Your task to perform on an android device: Go to calendar. Show me events next week Image 0: 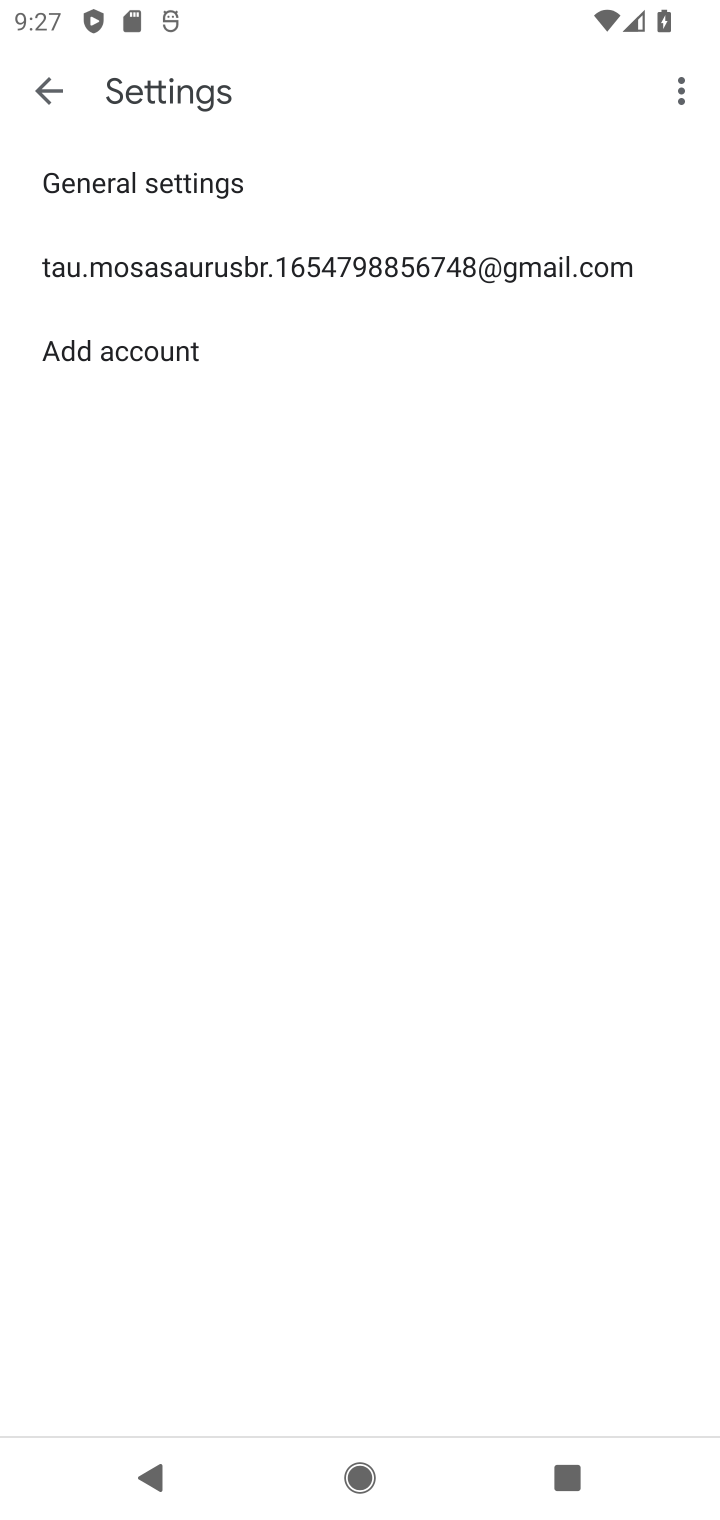
Step 0: press home button
Your task to perform on an android device: Go to calendar. Show me events next week Image 1: 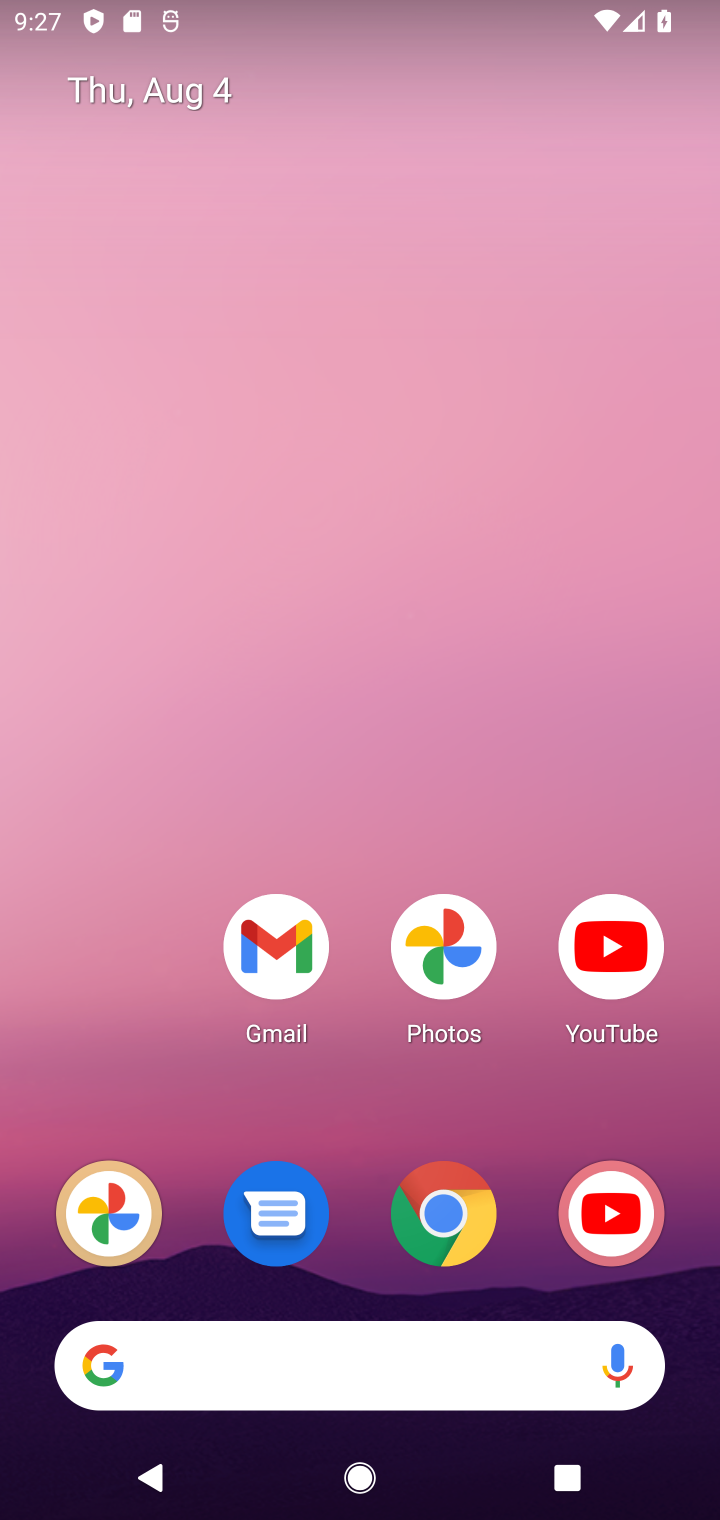
Step 1: drag from (358, 1124) to (426, 18)
Your task to perform on an android device: Go to calendar. Show me events next week Image 2: 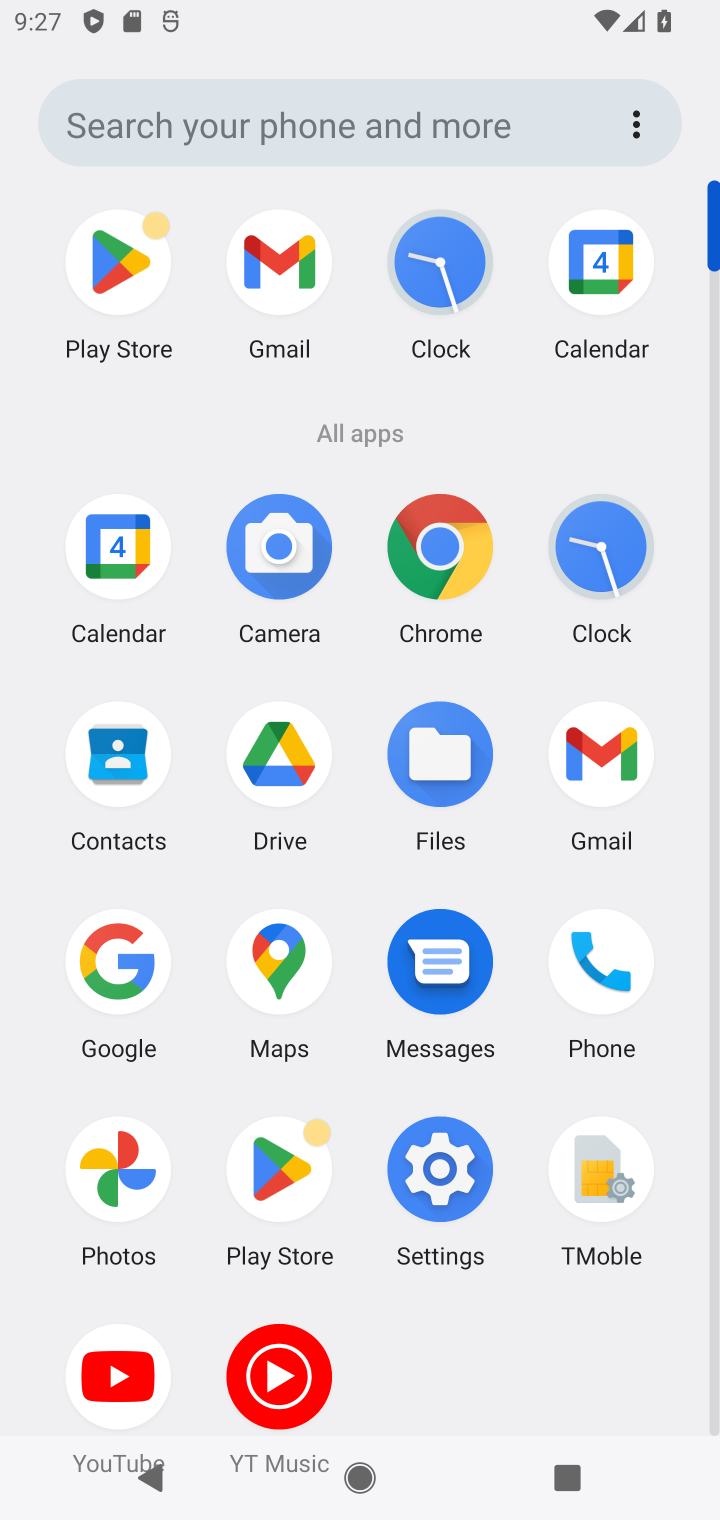
Step 2: click (605, 249)
Your task to perform on an android device: Go to calendar. Show me events next week Image 3: 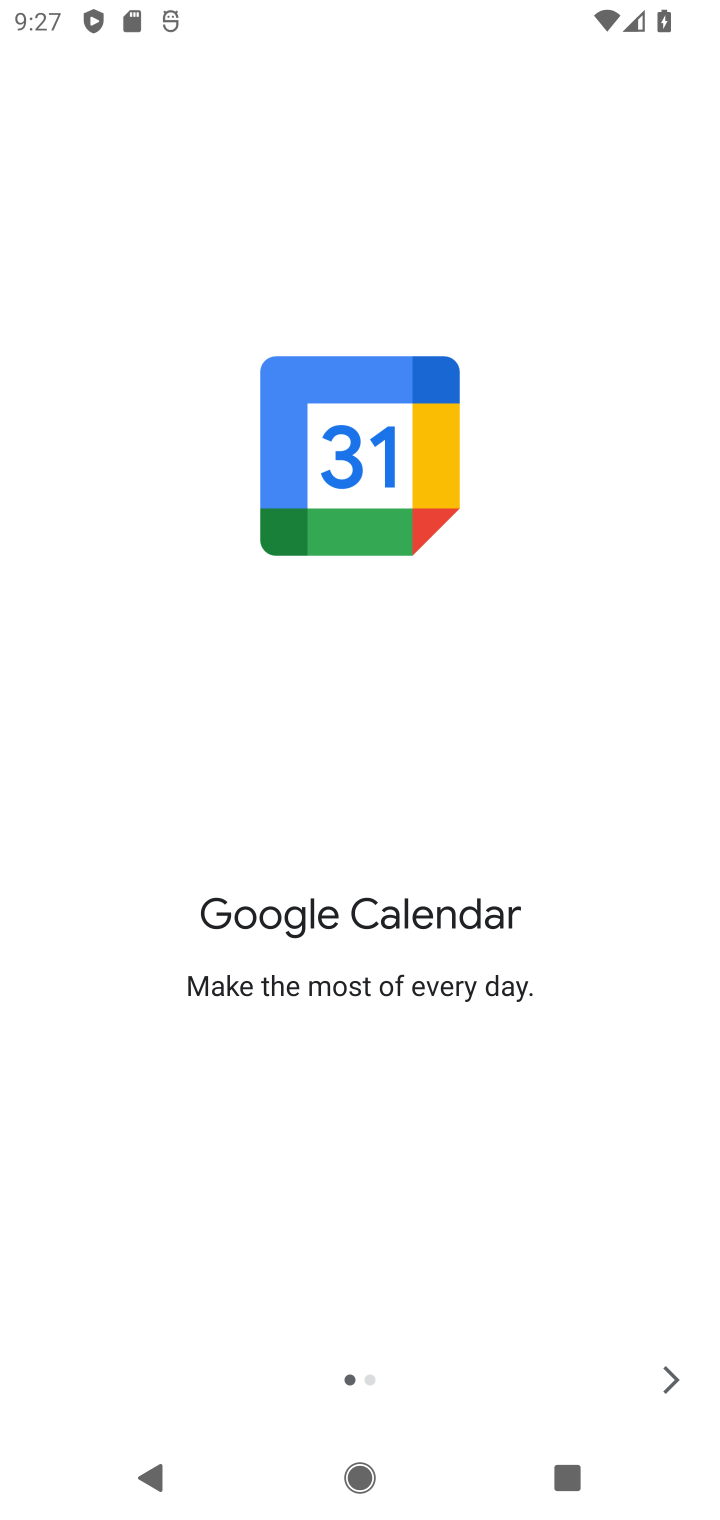
Step 3: click (664, 1369)
Your task to perform on an android device: Go to calendar. Show me events next week Image 4: 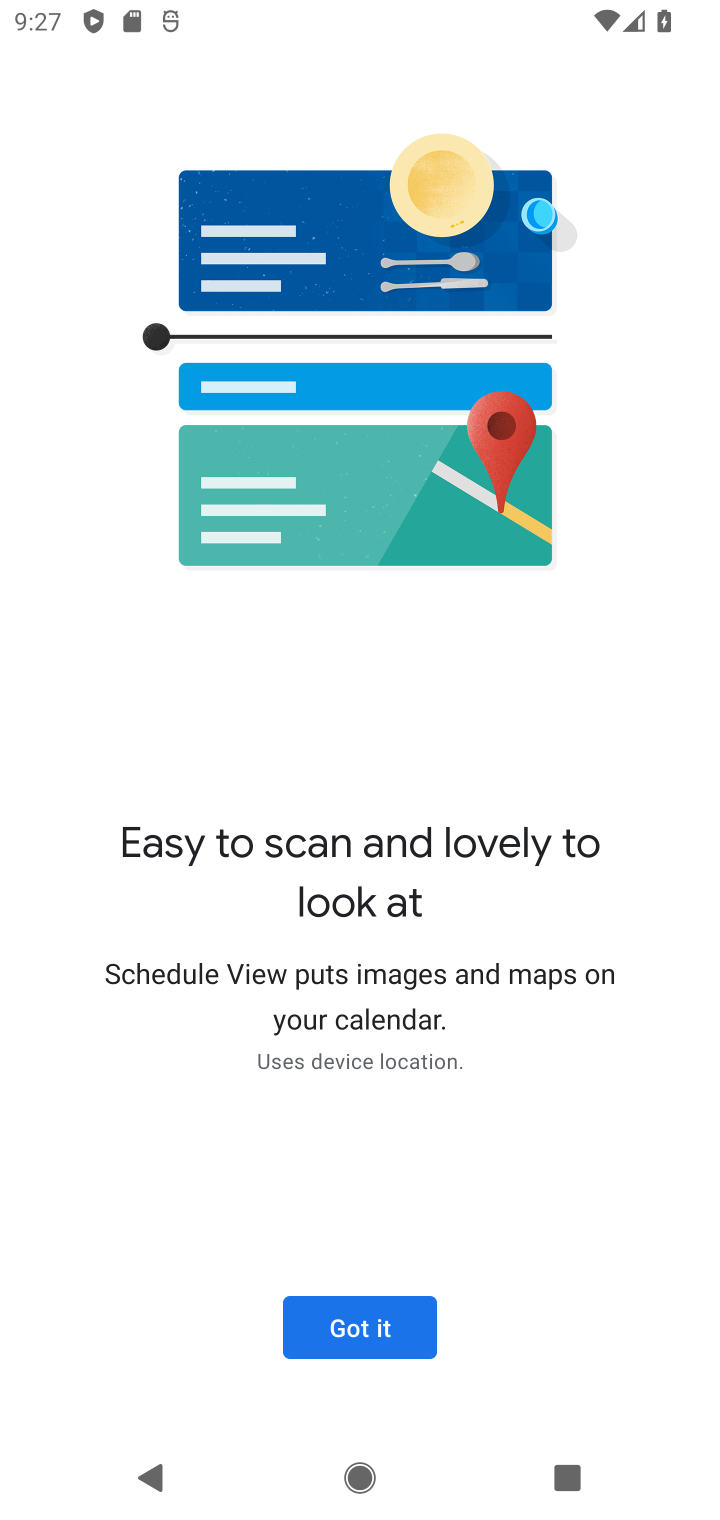
Step 4: click (664, 1369)
Your task to perform on an android device: Go to calendar. Show me events next week Image 5: 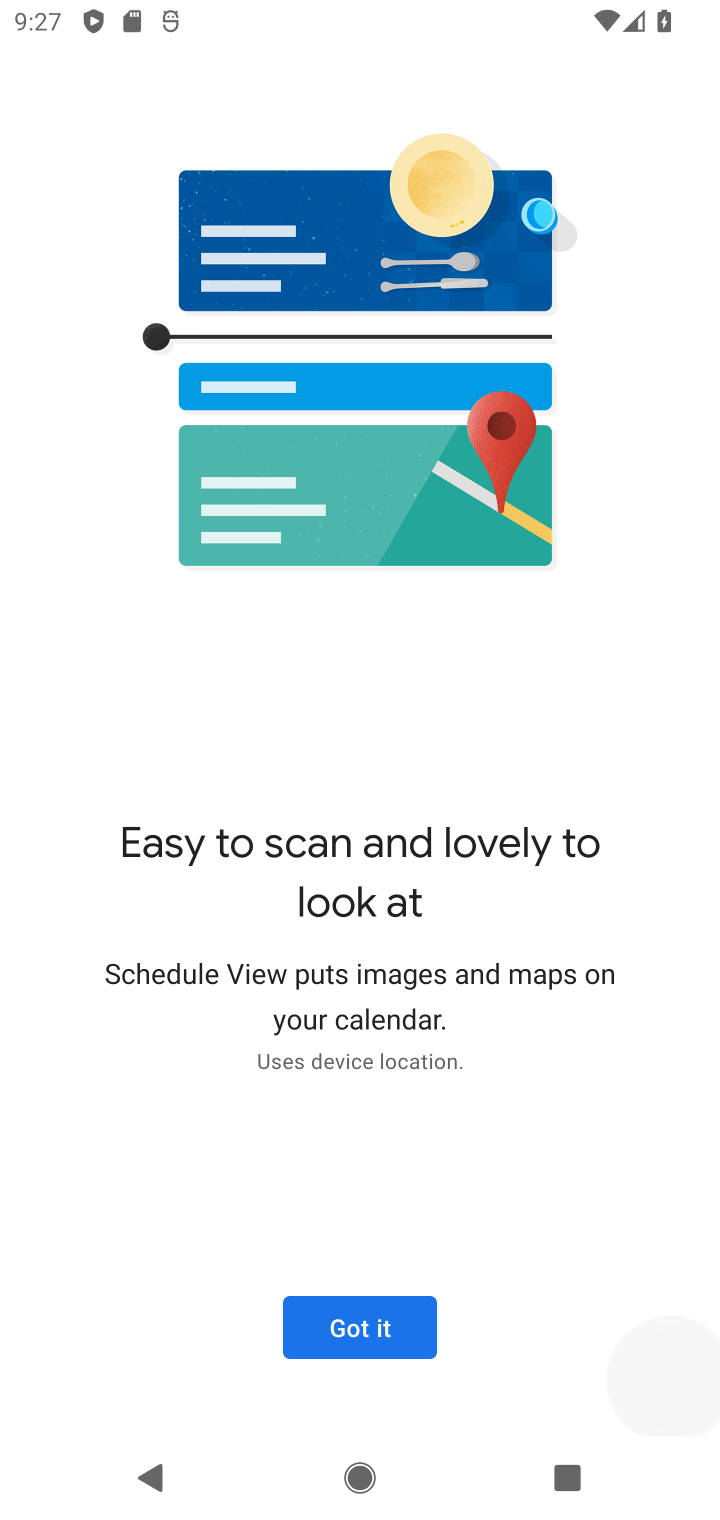
Step 5: click (363, 1323)
Your task to perform on an android device: Go to calendar. Show me events next week Image 6: 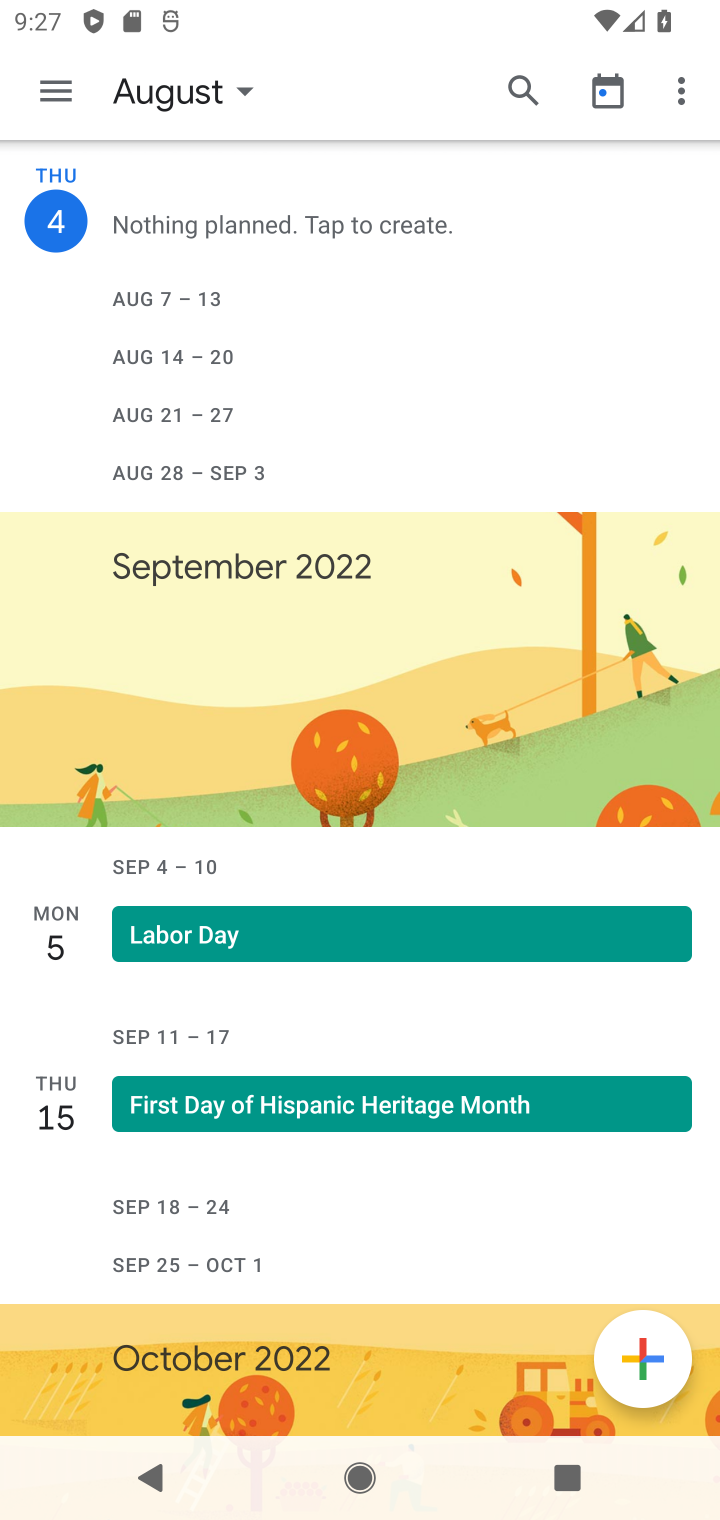
Step 6: click (43, 78)
Your task to perform on an android device: Go to calendar. Show me events next week Image 7: 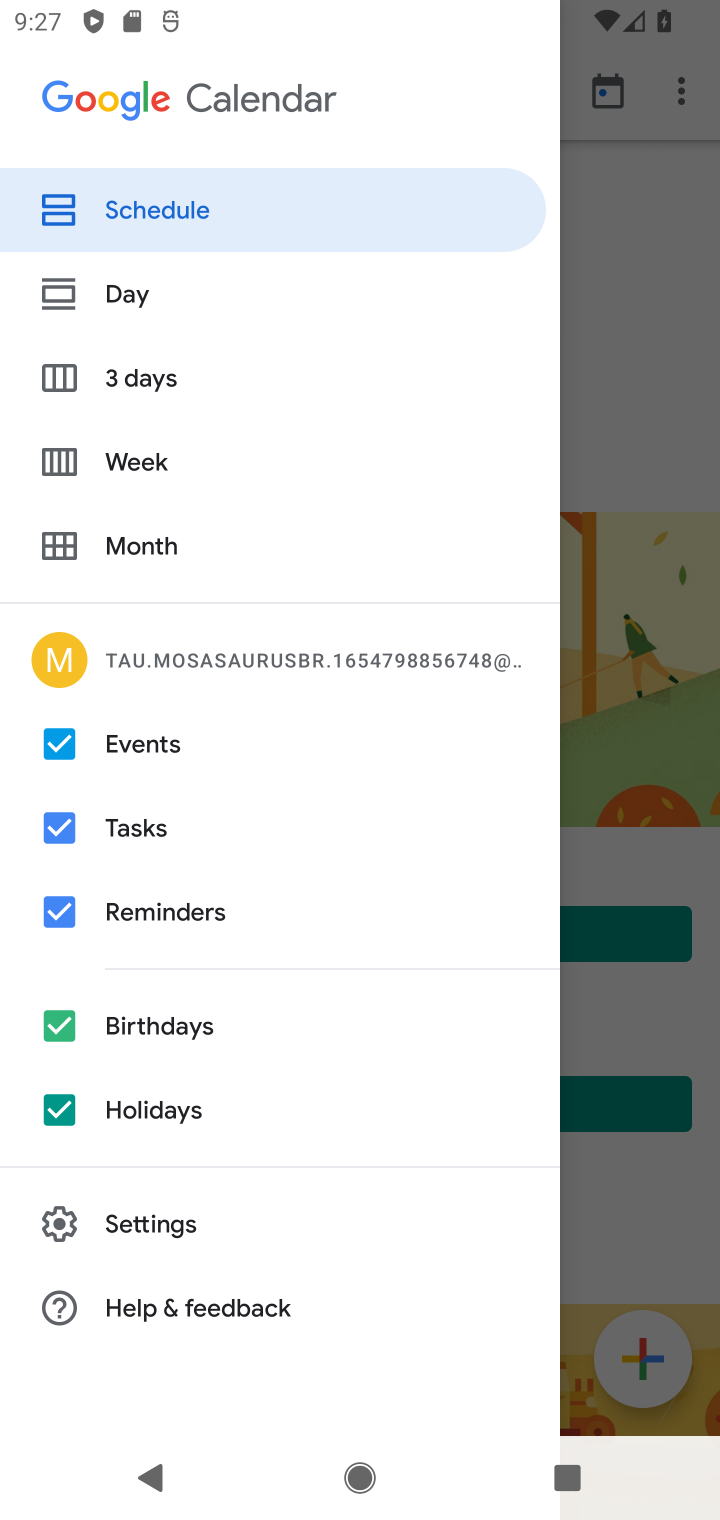
Step 7: click (121, 452)
Your task to perform on an android device: Go to calendar. Show me events next week Image 8: 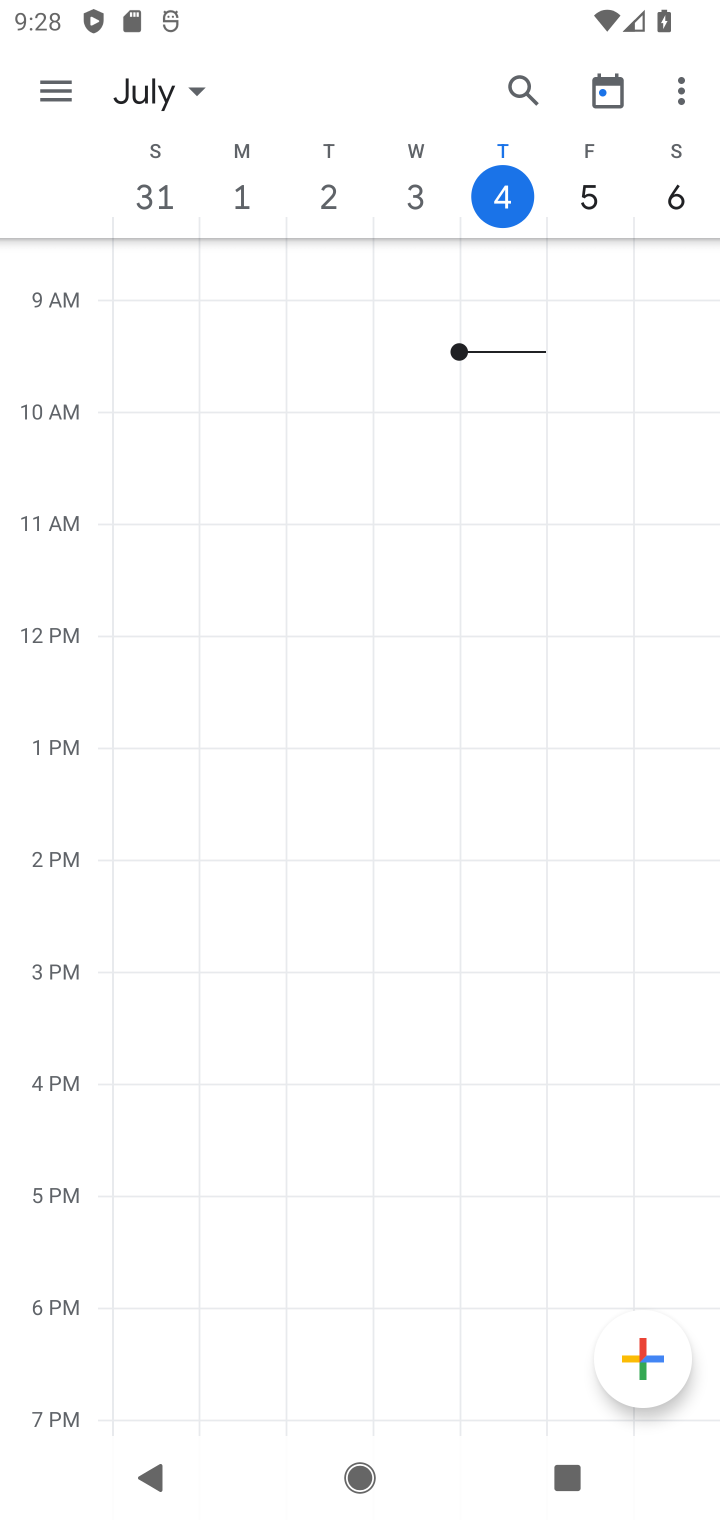
Step 8: task complete